Your task to perform on an android device: delete a single message in the gmail app Image 0: 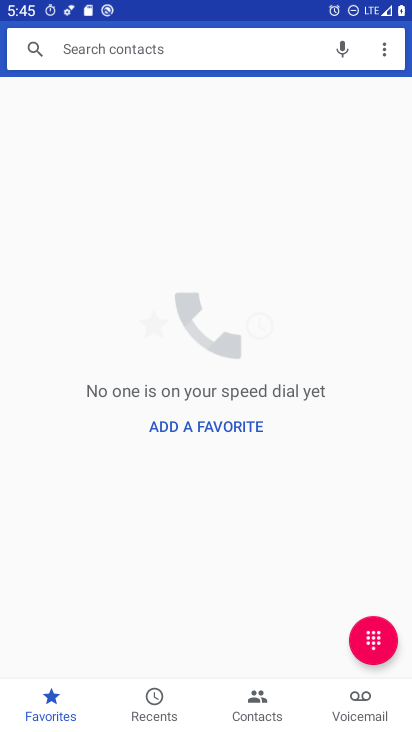
Step 0: press home button
Your task to perform on an android device: delete a single message in the gmail app Image 1: 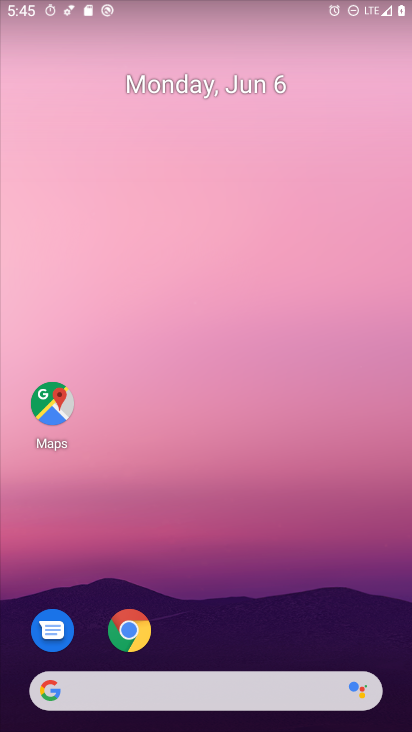
Step 1: drag from (284, 547) to (200, 10)
Your task to perform on an android device: delete a single message in the gmail app Image 2: 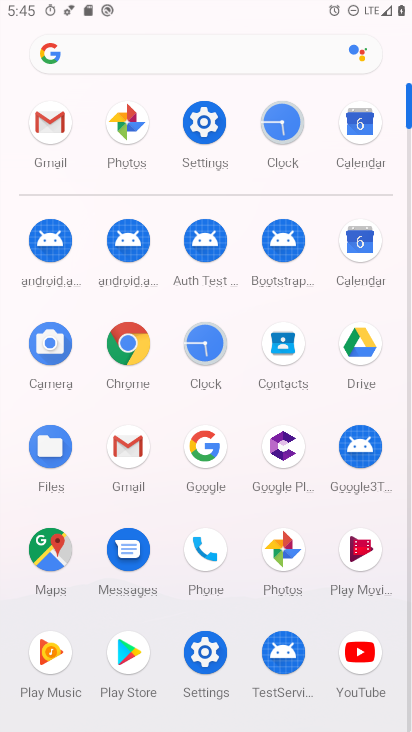
Step 2: click (128, 553)
Your task to perform on an android device: delete a single message in the gmail app Image 3: 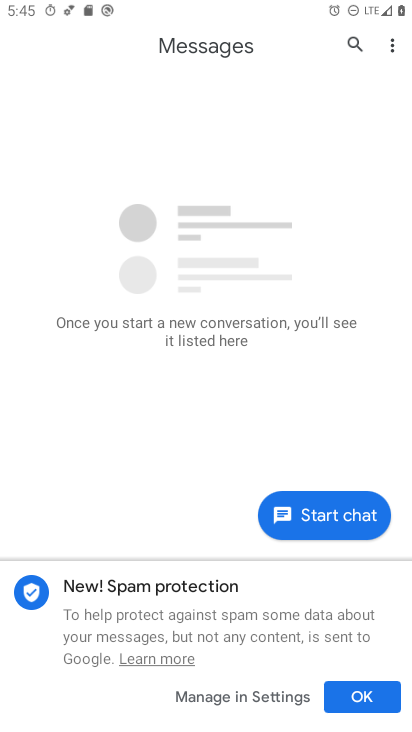
Step 3: press back button
Your task to perform on an android device: delete a single message in the gmail app Image 4: 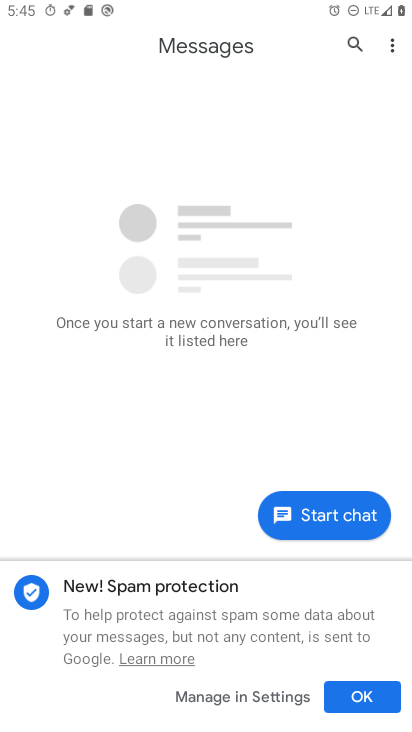
Step 4: press back button
Your task to perform on an android device: delete a single message in the gmail app Image 5: 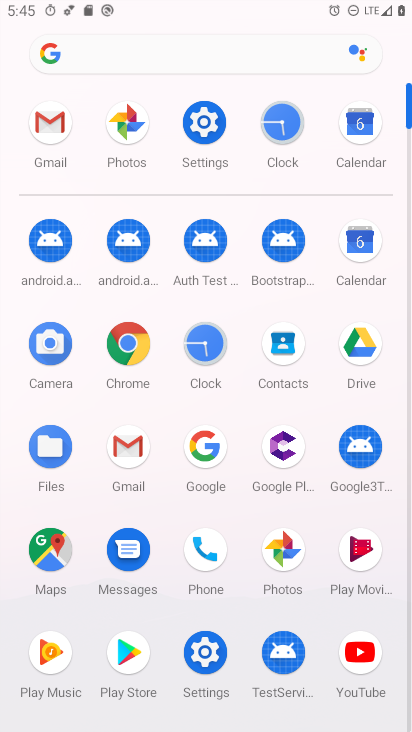
Step 5: click (129, 444)
Your task to perform on an android device: delete a single message in the gmail app Image 6: 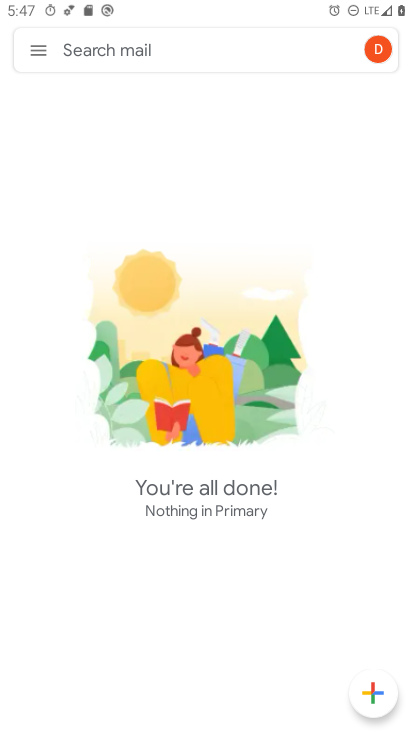
Step 6: task complete